Your task to perform on an android device: turn on showing notifications on the lock screen Image 0: 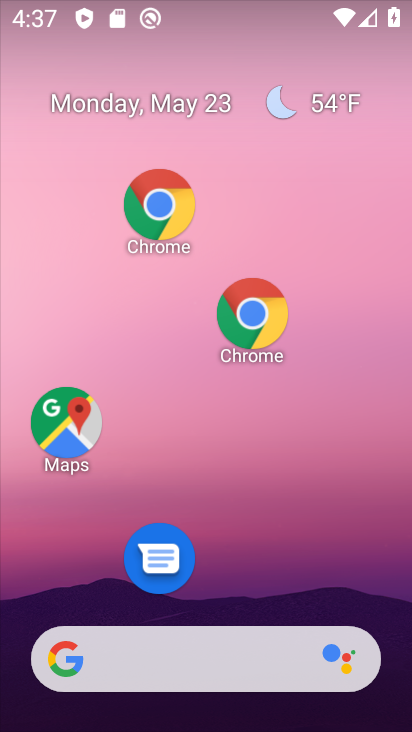
Step 0: drag from (325, 681) to (192, 146)
Your task to perform on an android device: turn on showing notifications on the lock screen Image 1: 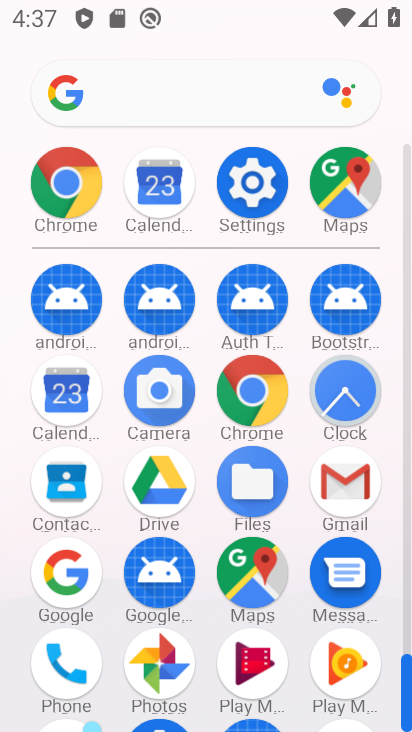
Step 1: click (247, 387)
Your task to perform on an android device: turn on showing notifications on the lock screen Image 2: 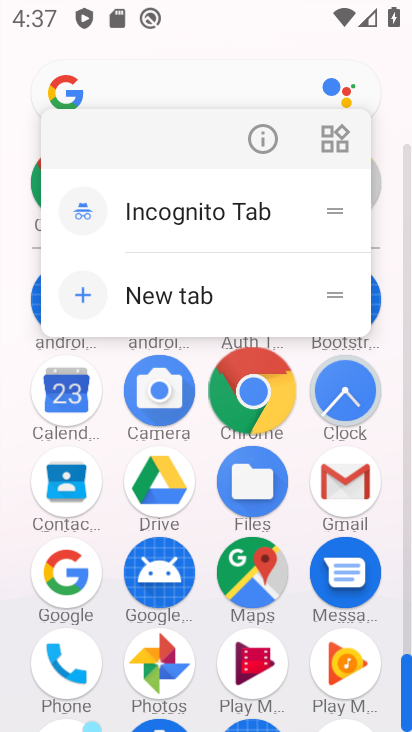
Step 2: click (247, 387)
Your task to perform on an android device: turn on showing notifications on the lock screen Image 3: 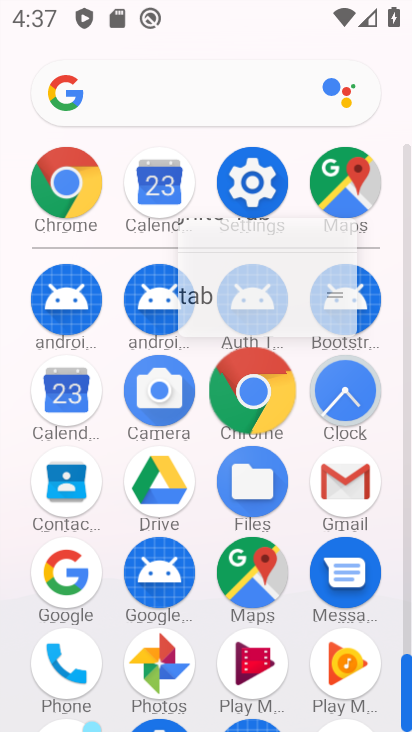
Step 3: click (247, 387)
Your task to perform on an android device: turn on showing notifications on the lock screen Image 4: 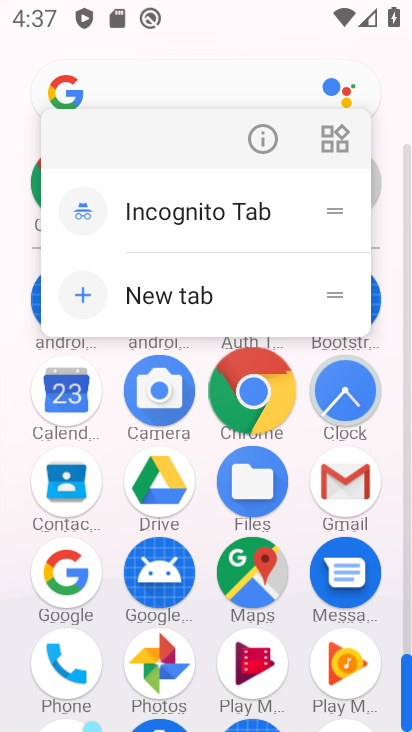
Step 4: click (247, 387)
Your task to perform on an android device: turn on showing notifications on the lock screen Image 5: 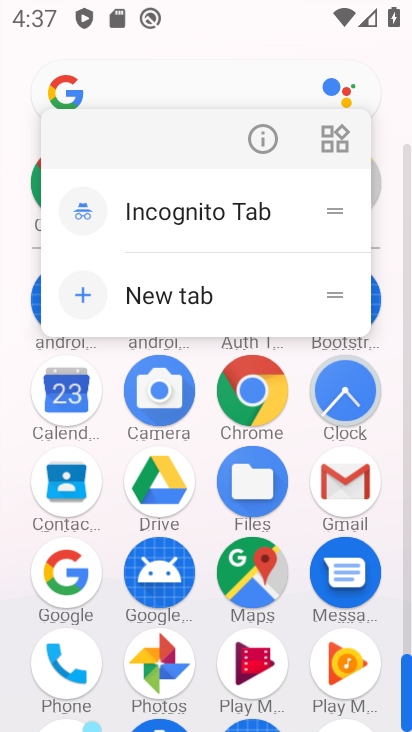
Step 5: click (247, 387)
Your task to perform on an android device: turn on showing notifications on the lock screen Image 6: 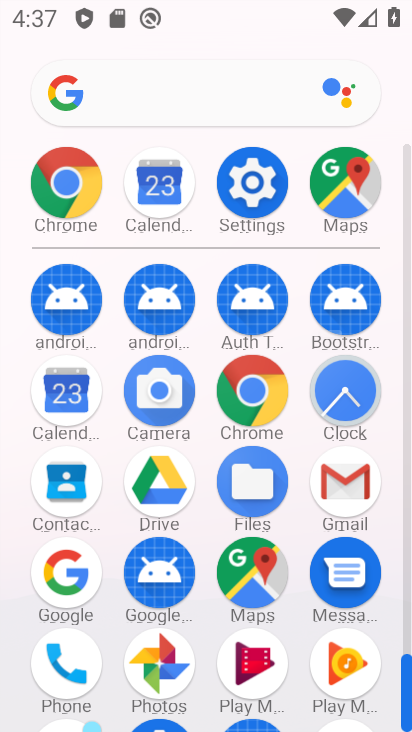
Step 6: click (246, 386)
Your task to perform on an android device: turn on showing notifications on the lock screen Image 7: 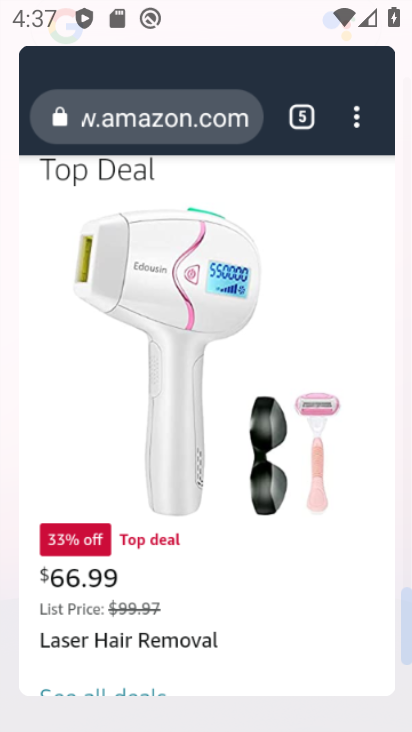
Step 7: click (245, 385)
Your task to perform on an android device: turn on showing notifications on the lock screen Image 8: 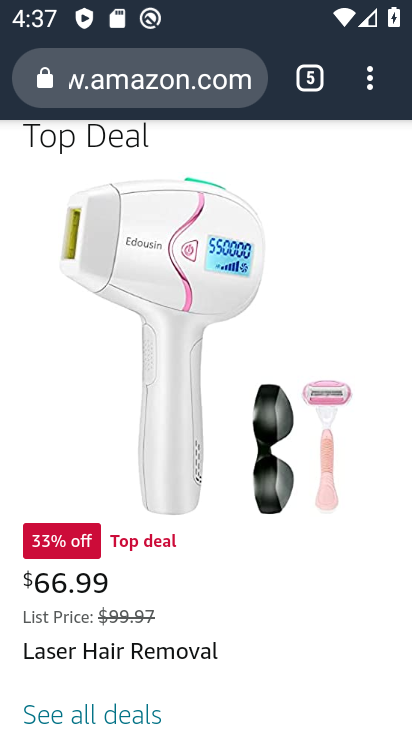
Step 8: press back button
Your task to perform on an android device: turn on showing notifications on the lock screen Image 9: 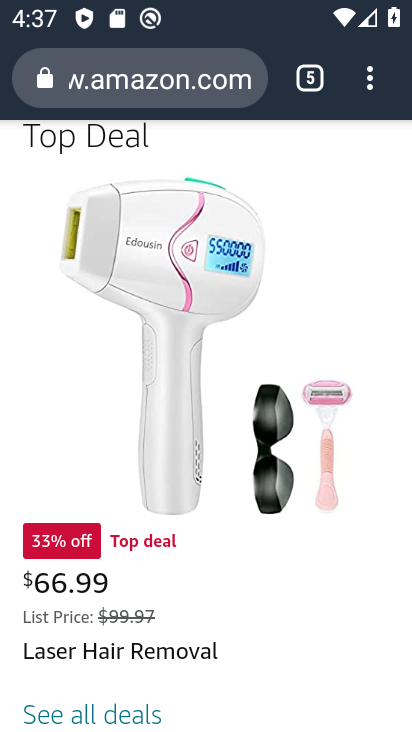
Step 9: press back button
Your task to perform on an android device: turn on showing notifications on the lock screen Image 10: 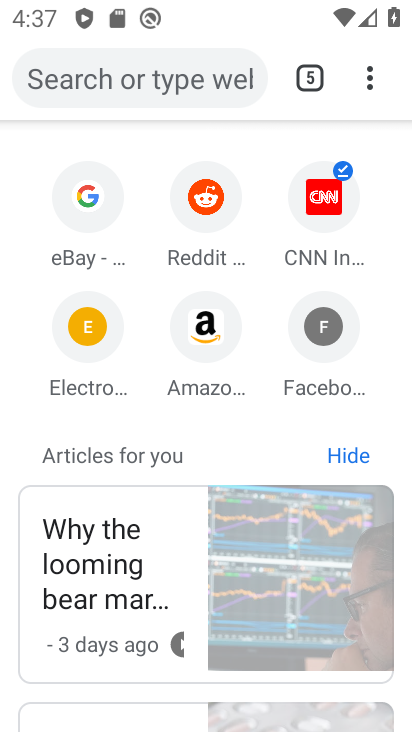
Step 10: press back button
Your task to perform on an android device: turn on showing notifications on the lock screen Image 11: 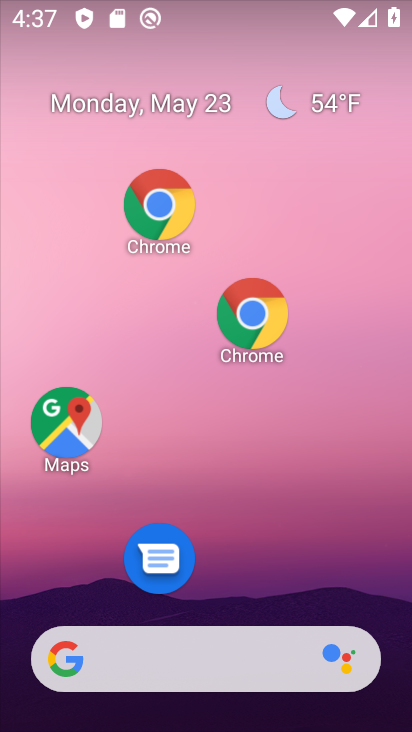
Step 11: drag from (285, 577) to (211, 178)
Your task to perform on an android device: turn on showing notifications on the lock screen Image 12: 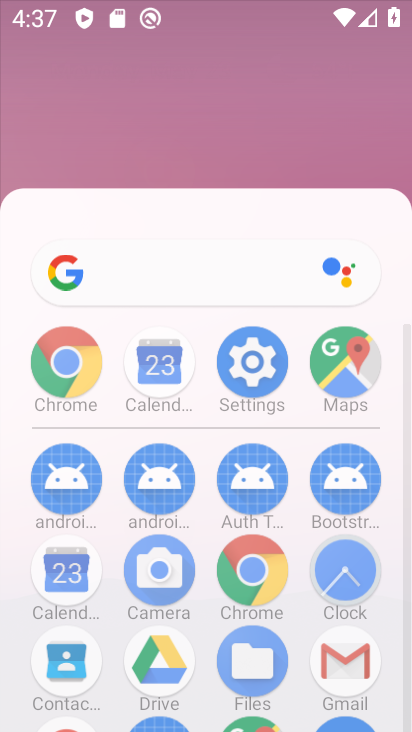
Step 12: drag from (264, 419) to (219, 135)
Your task to perform on an android device: turn on showing notifications on the lock screen Image 13: 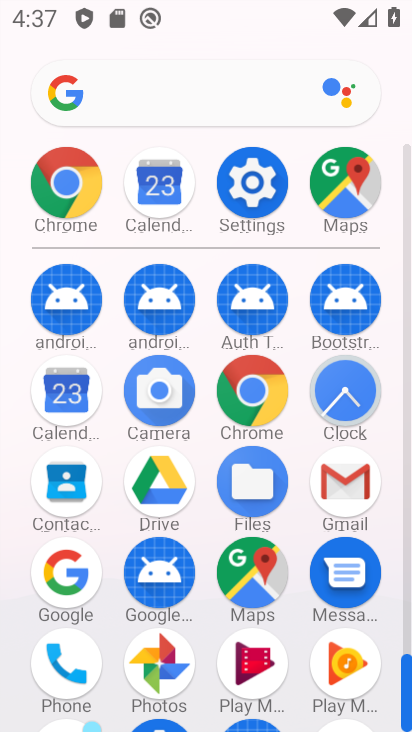
Step 13: drag from (269, 524) to (275, 56)
Your task to perform on an android device: turn on showing notifications on the lock screen Image 14: 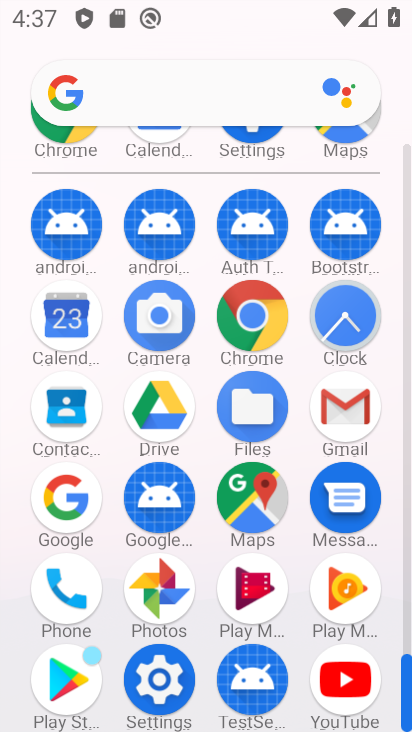
Step 14: click (173, 689)
Your task to perform on an android device: turn on showing notifications on the lock screen Image 15: 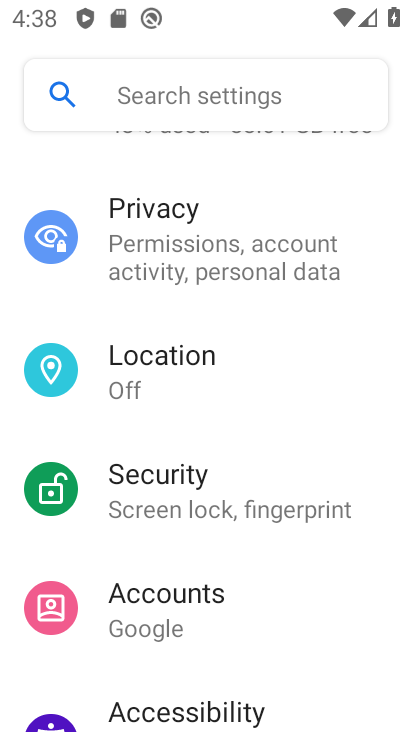
Step 15: drag from (237, 584) to (300, 68)
Your task to perform on an android device: turn on showing notifications on the lock screen Image 16: 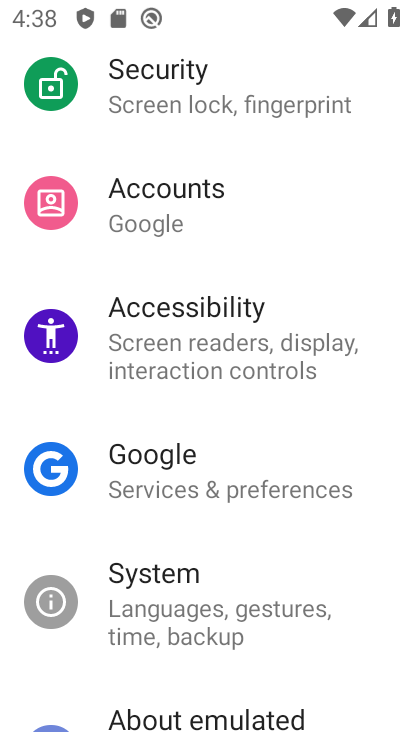
Step 16: drag from (239, 379) to (244, 57)
Your task to perform on an android device: turn on showing notifications on the lock screen Image 17: 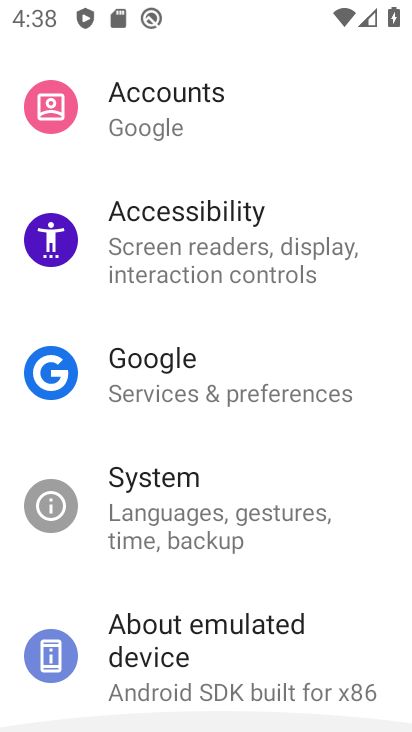
Step 17: drag from (150, 560) to (192, 149)
Your task to perform on an android device: turn on showing notifications on the lock screen Image 18: 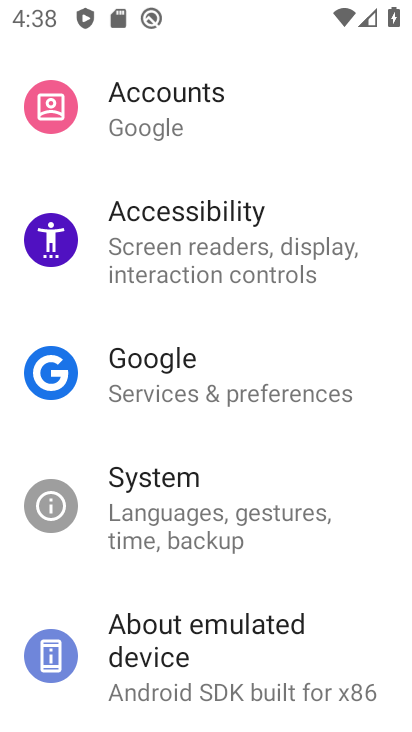
Step 18: drag from (186, 468) to (256, 14)
Your task to perform on an android device: turn on showing notifications on the lock screen Image 19: 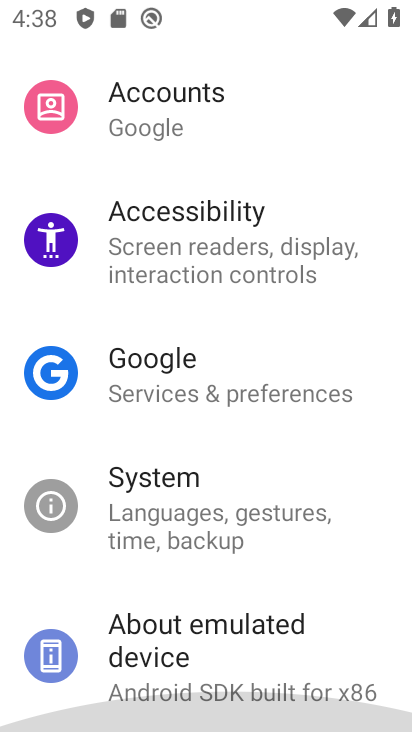
Step 19: drag from (256, 556) to (183, 53)
Your task to perform on an android device: turn on showing notifications on the lock screen Image 20: 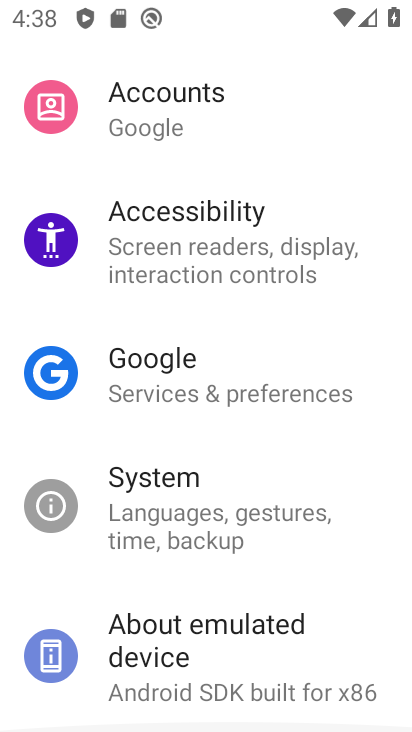
Step 20: drag from (145, 511) to (142, 153)
Your task to perform on an android device: turn on showing notifications on the lock screen Image 21: 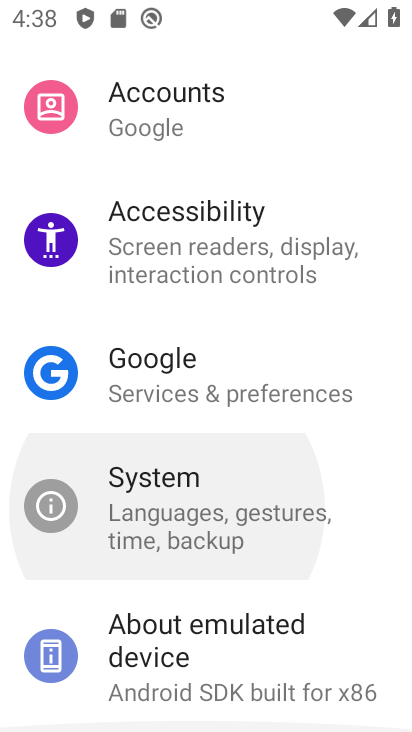
Step 21: drag from (99, 445) to (140, 78)
Your task to perform on an android device: turn on showing notifications on the lock screen Image 22: 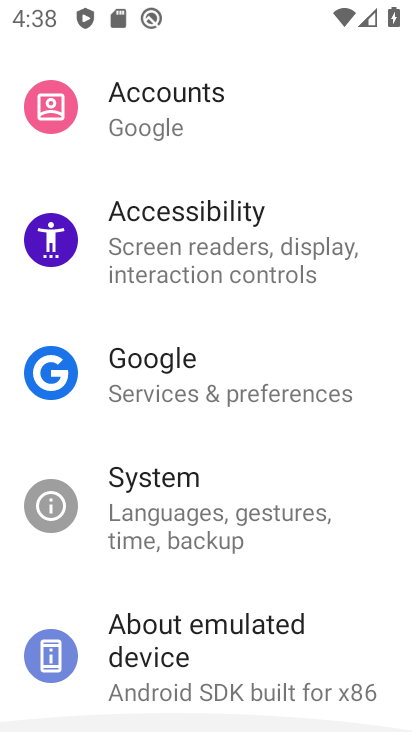
Step 22: drag from (191, 577) to (174, 192)
Your task to perform on an android device: turn on showing notifications on the lock screen Image 23: 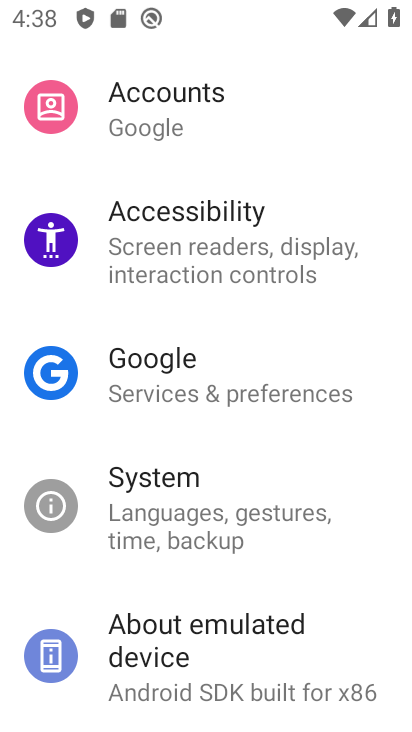
Step 23: drag from (175, 311) to (260, 537)
Your task to perform on an android device: turn on showing notifications on the lock screen Image 24: 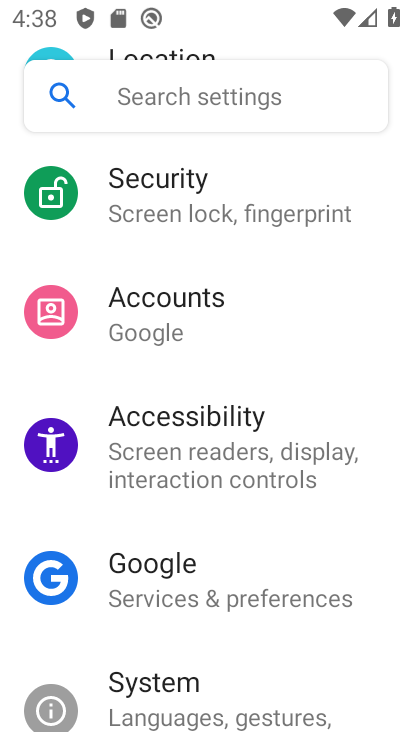
Step 24: drag from (150, 143) to (190, 610)
Your task to perform on an android device: turn on showing notifications on the lock screen Image 25: 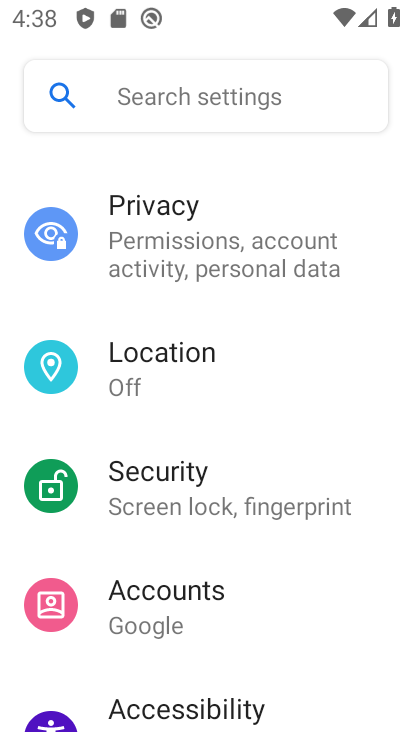
Step 25: drag from (162, 294) to (183, 667)
Your task to perform on an android device: turn on showing notifications on the lock screen Image 26: 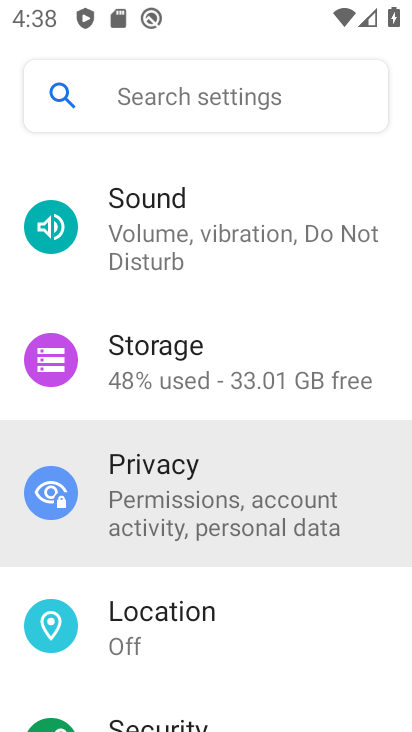
Step 26: drag from (174, 378) to (230, 695)
Your task to perform on an android device: turn on showing notifications on the lock screen Image 27: 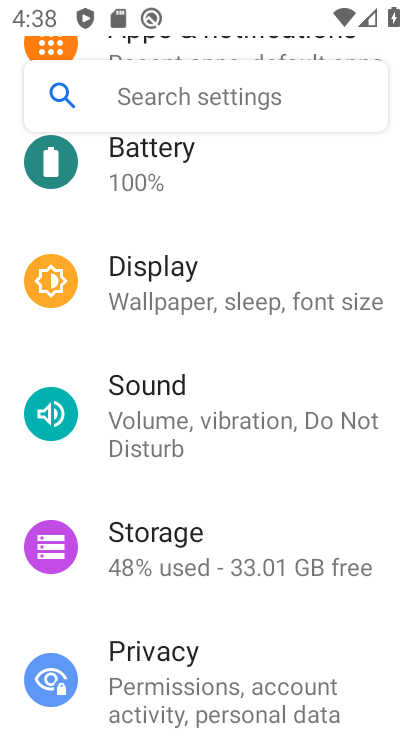
Step 27: drag from (133, 352) to (220, 650)
Your task to perform on an android device: turn on showing notifications on the lock screen Image 28: 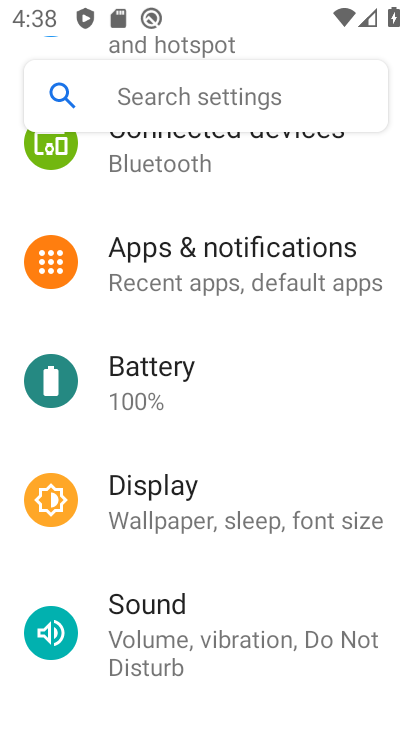
Step 28: drag from (209, 305) to (140, 231)
Your task to perform on an android device: turn on showing notifications on the lock screen Image 29: 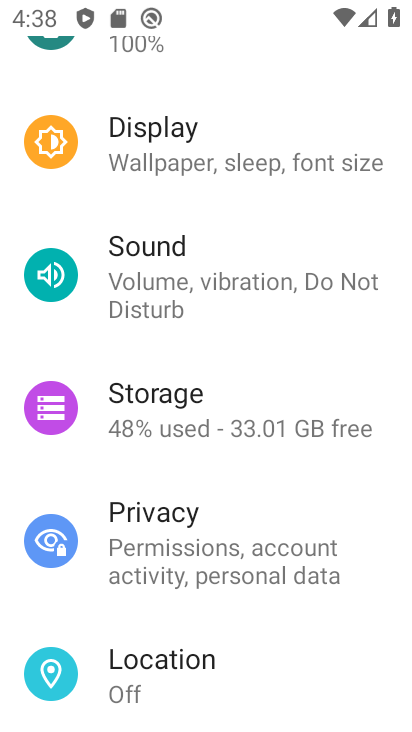
Step 29: drag from (250, 493) to (242, 82)
Your task to perform on an android device: turn on showing notifications on the lock screen Image 30: 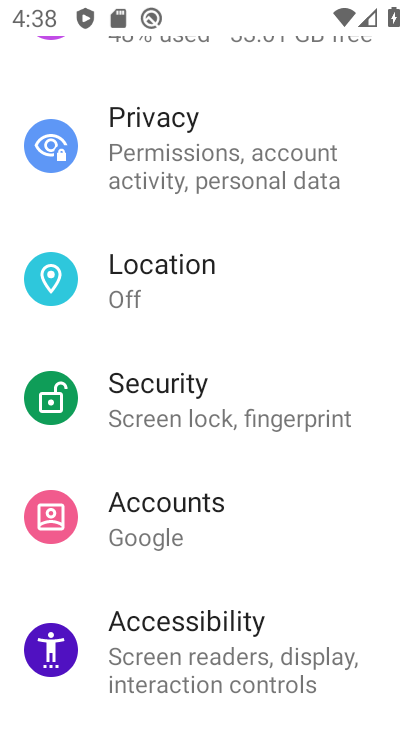
Step 30: drag from (270, 511) to (184, 85)
Your task to perform on an android device: turn on showing notifications on the lock screen Image 31: 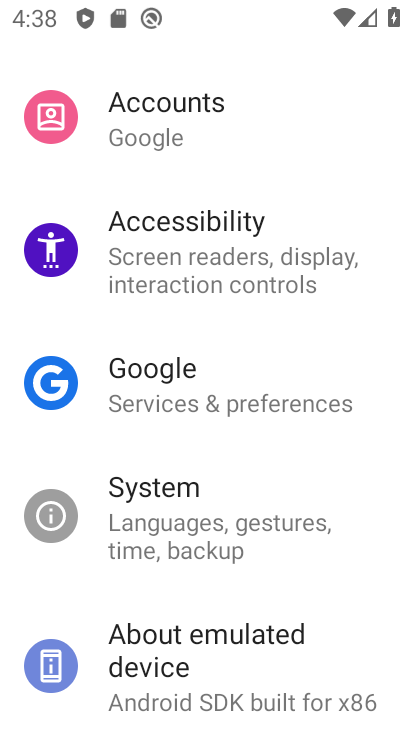
Step 31: drag from (156, 437) to (197, 98)
Your task to perform on an android device: turn on showing notifications on the lock screen Image 32: 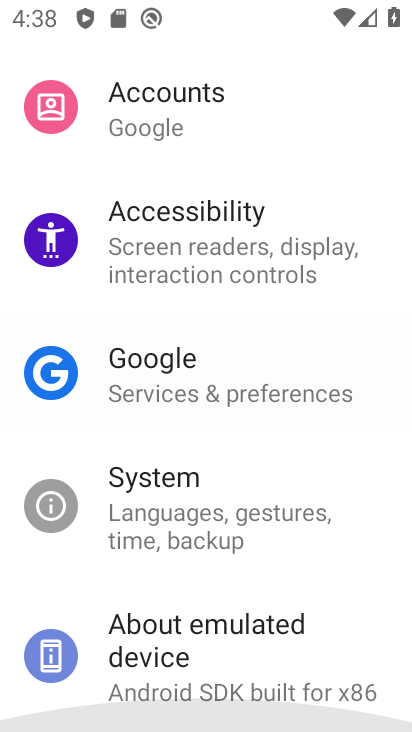
Step 32: drag from (221, 610) to (196, 206)
Your task to perform on an android device: turn on showing notifications on the lock screen Image 33: 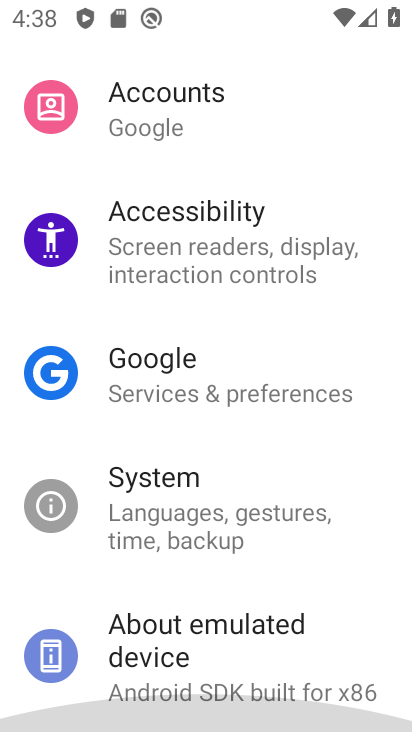
Step 33: drag from (192, 632) to (130, 169)
Your task to perform on an android device: turn on showing notifications on the lock screen Image 34: 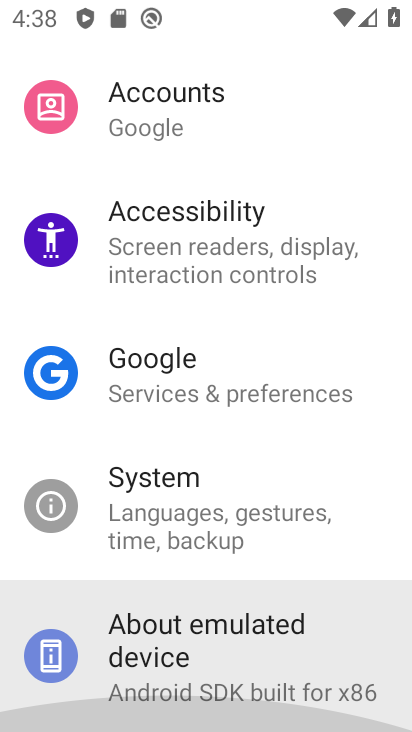
Step 34: drag from (176, 600) to (230, 713)
Your task to perform on an android device: turn on showing notifications on the lock screen Image 35: 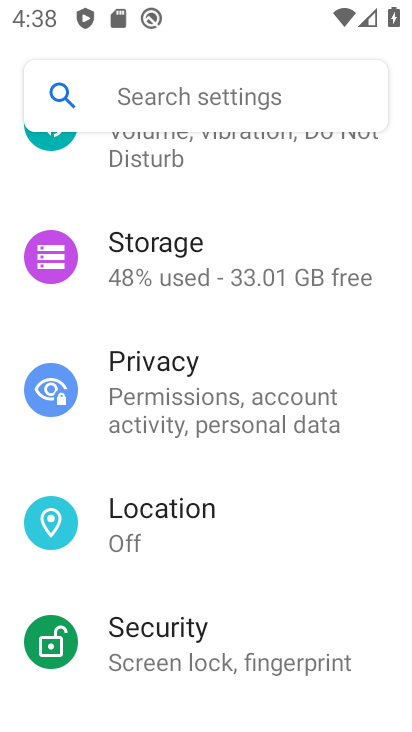
Step 35: drag from (179, 362) to (244, 606)
Your task to perform on an android device: turn on showing notifications on the lock screen Image 36: 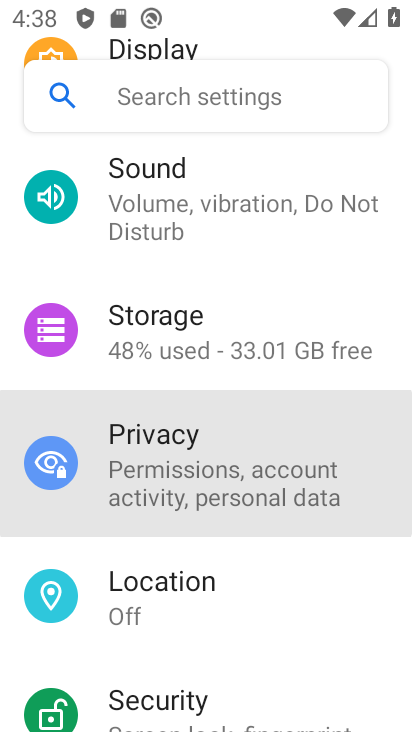
Step 36: drag from (217, 171) to (279, 596)
Your task to perform on an android device: turn on showing notifications on the lock screen Image 37: 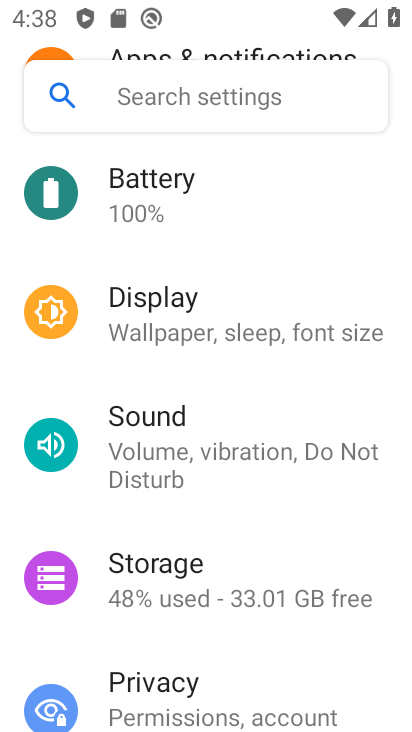
Step 37: drag from (212, 295) to (255, 671)
Your task to perform on an android device: turn on showing notifications on the lock screen Image 38: 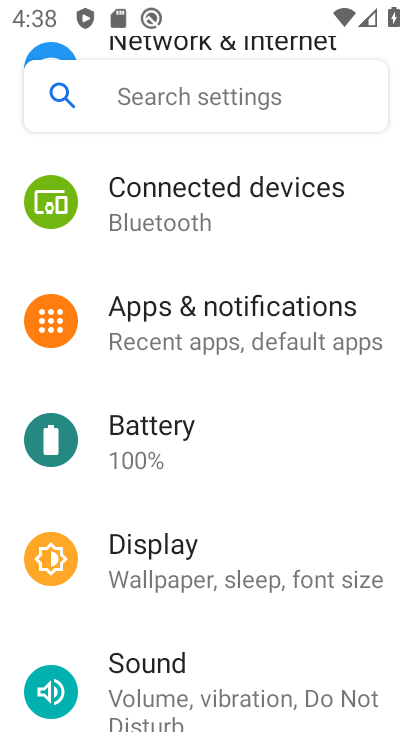
Step 38: drag from (179, 188) to (283, 684)
Your task to perform on an android device: turn on showing notifications on the lock screen Image 39: 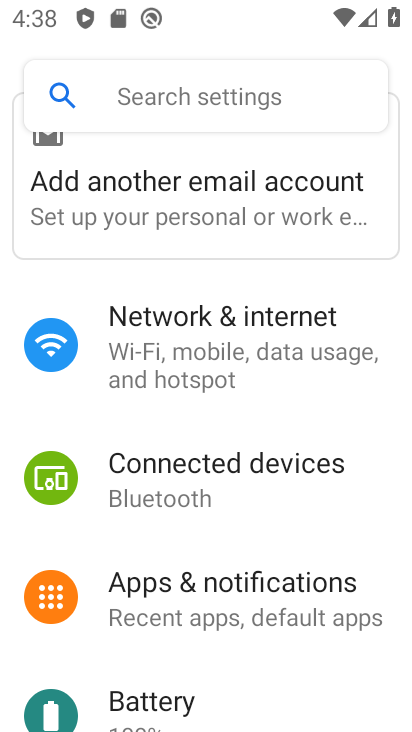
Step 39: drag from (239, 275) to (282, 718)
Your task to perform on an android device: turn on showing notifications on the lock screen Image 40: 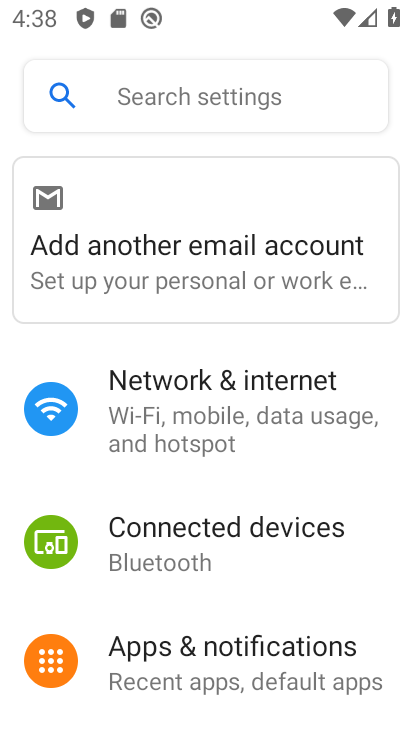
Step 40: click (218, 664)
Your task to perform on an android device: turn on showing notifications on the lock screen Image 41: 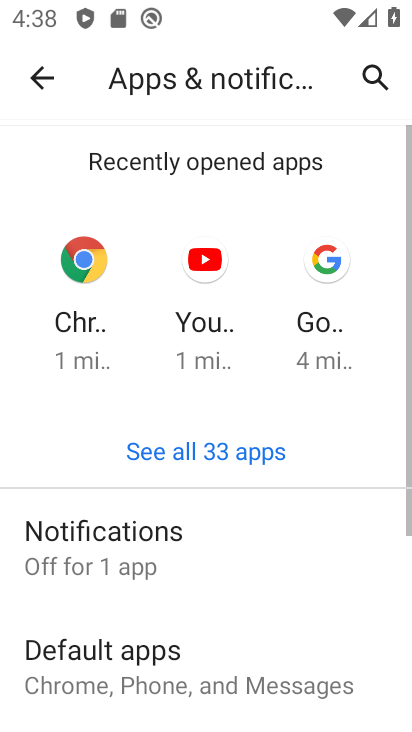
Step 41: click (102, 536)
Your task to perform on an android device: turn on showing notifications on the lock screen Image 42: 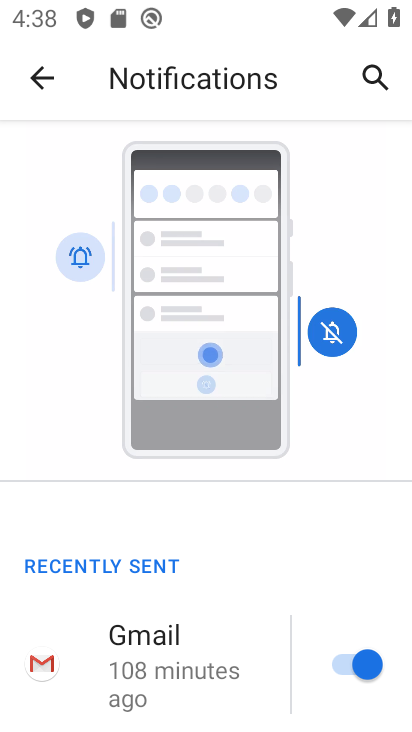
Step 42: drag from (191, 615) to (124, 159)
Your task to perform on an android device: turn on showing notifications on the lock screen Image 43: 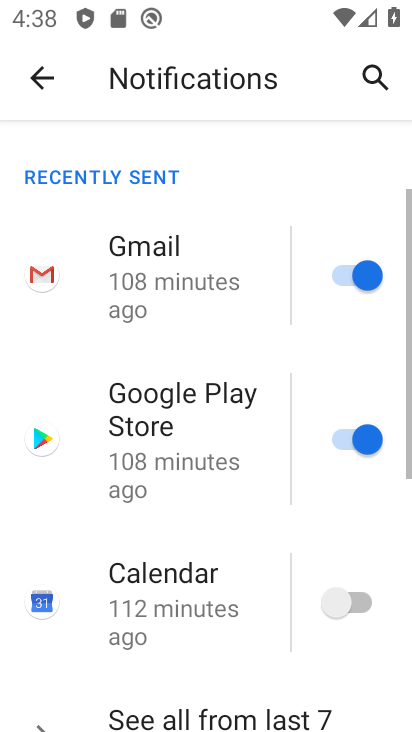
Step 43: drag from (180, 471) to (210, 137)
Your task to perform on an android device: turn on showing notifications on the lock screen Image 44: 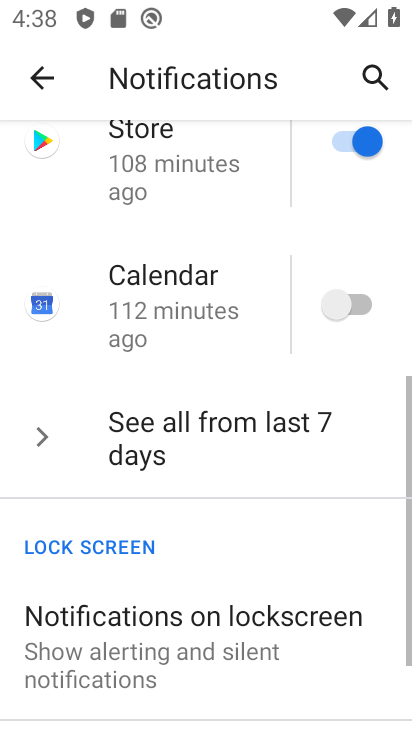
Step 44: drag from (249, 460) to (243, 18)
Your task to perform on an android device: turn on showing notifications on the lock screen Image 45: 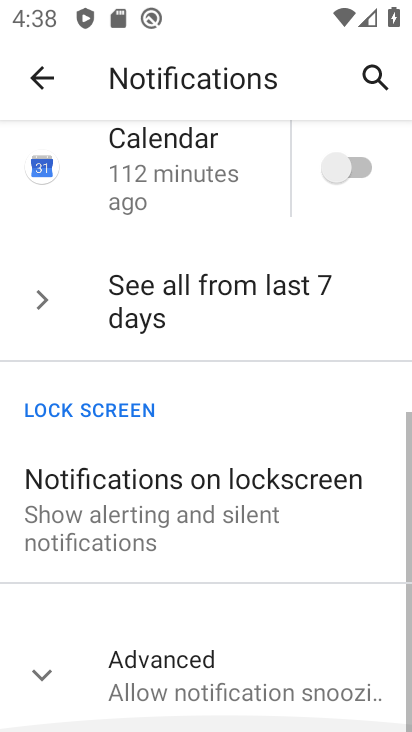
Step 45: drag from (228, 495) to (211, 93)
Your task to perform on an android device: turn on showing notifications on the lock screen Image 46: 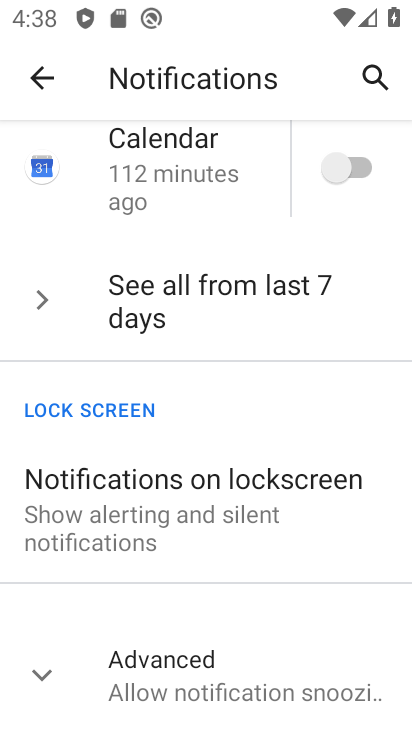
Step 46: click (139, 500)
Your task to perform on an android device: turn on showing notifications on the lock screen Image 47: 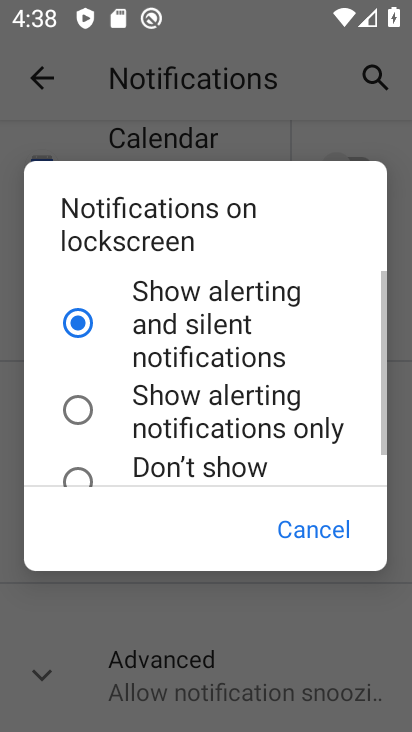
Step 47: click (314, 527)
Your task to perform on an android device: turn on showing notifications on the lock screen Image 48: 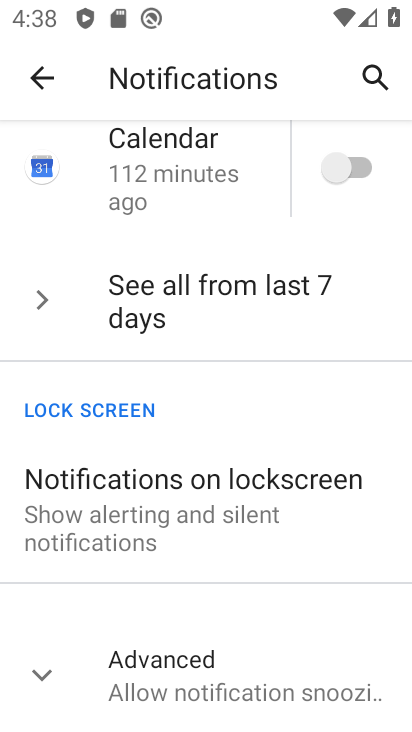
Step 48: task complete